Your task to perform on an android device: Open the phone app and click the voicemail tab. Image 0: 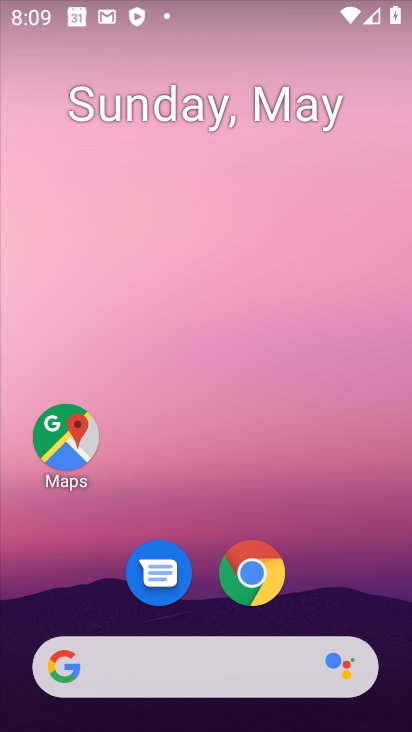
Step 0: drag from (232, 520) to (212, 1)
Your task to perform on an android device: Open the phone app and click the voicemail tab. Image 1: 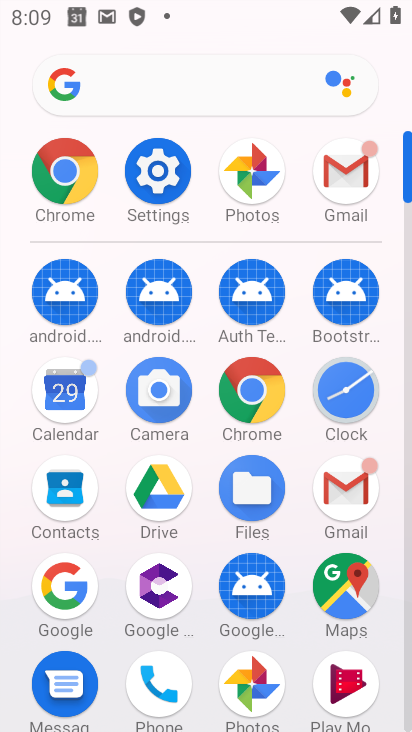
Step 1: click (170, 673)
Your task to perform on an android device: Open the phone app and click the voicemail tab. Image 2: 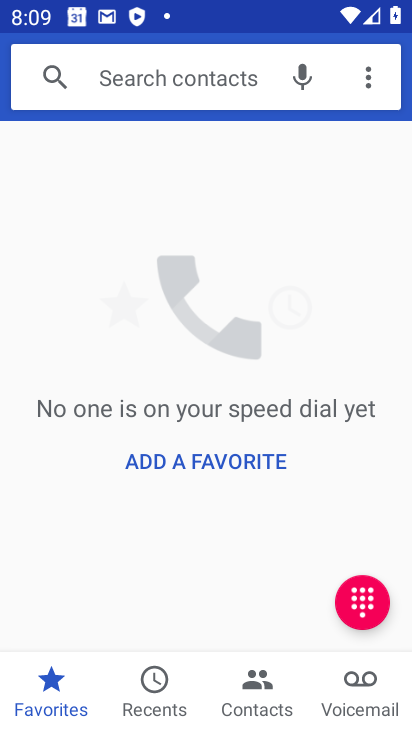
Step 2: click (372, 692)
Your task to perform on an android device: Open the phone app and click the voicemail tab. Image 3: 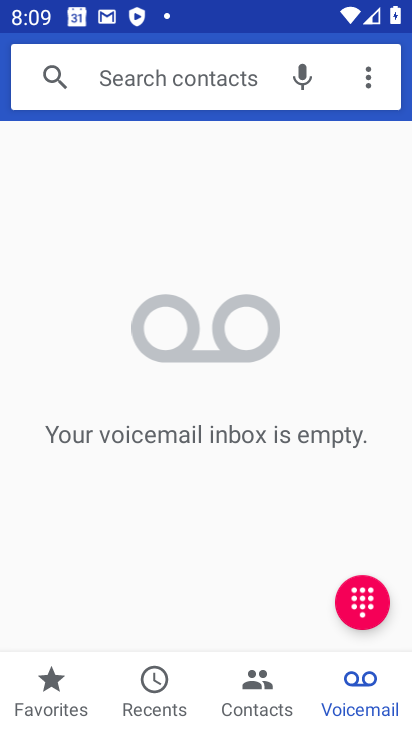
Step 3: task complete